Your task to perform on an android device: Turn on the flashlight Image 0: 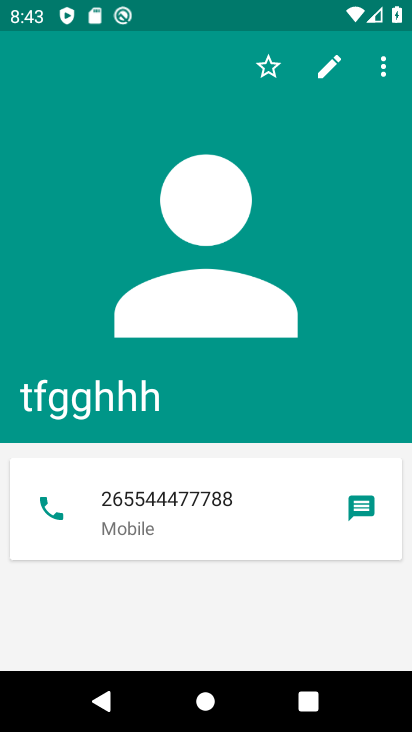
Step 0: click (378, 69)
Your task to perform on an android device: Turn on the flashlight Image 1: 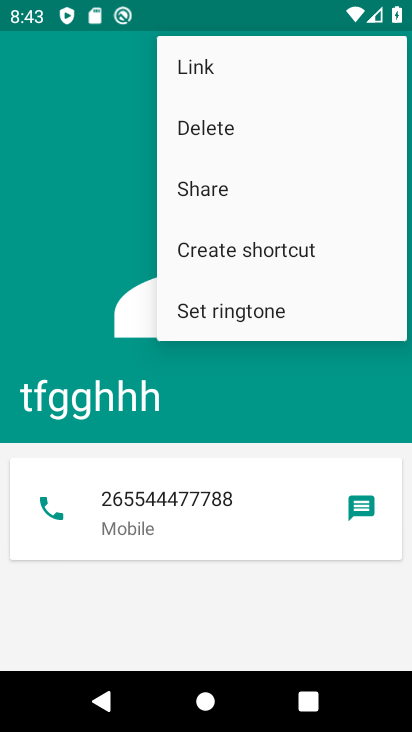
Step 1: task complete